Your task to perform on an android device: turn off improve location accuracy Image 0: 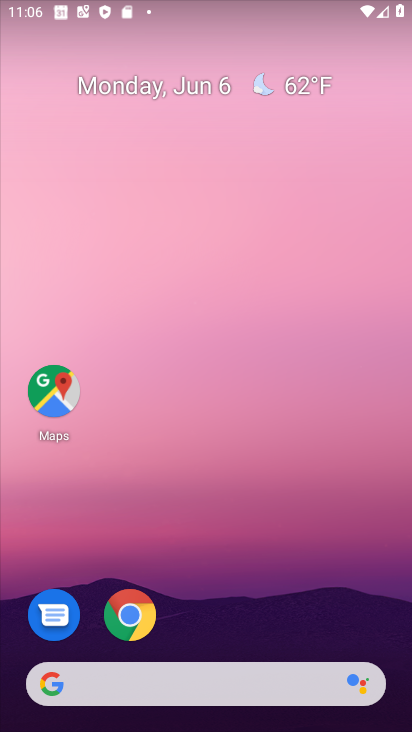
Step 0: drag from (181, 663) to (255, 141)
Your task to perform on an android device: turn off improve location accuracy Image 1: 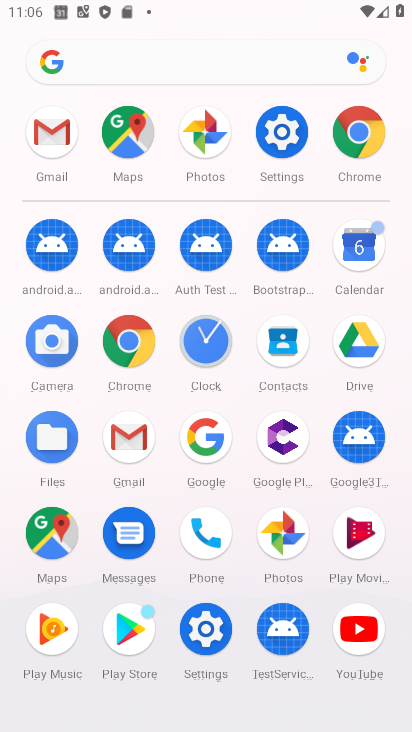
Step 1: click (276, 132)
Your task to perform on an android device: turn off improve location accuracy Image 2: 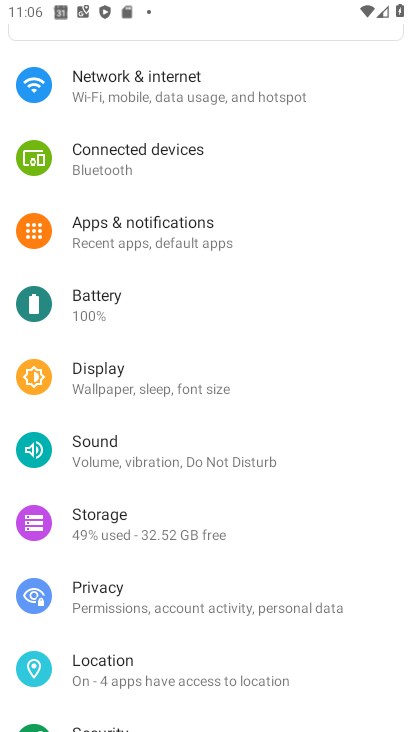
Step 2: click (156, 647)
Your task to perform on an android device: turn off improve location accuracy Image 3: 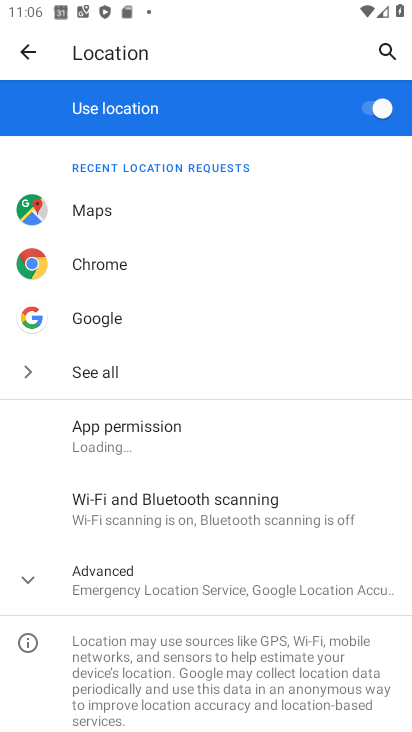
Step 3: click (117, 583)
Your task to perform on an android device: turn off improve location accuracy Image 4: 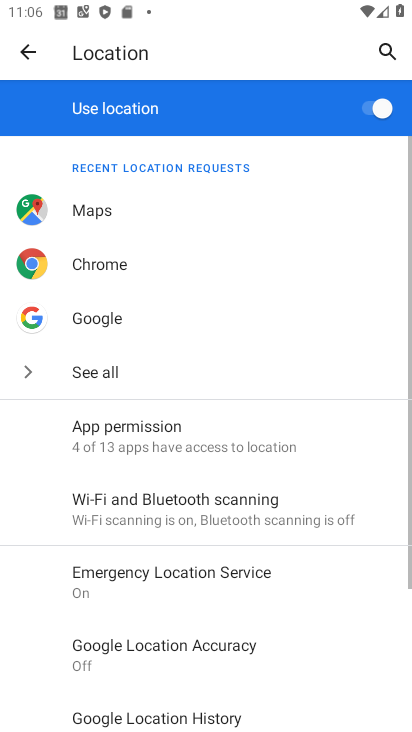
Step 4: click (203, 653)
Your task to perform on an android device: turn off improve location accuracy Image 5: 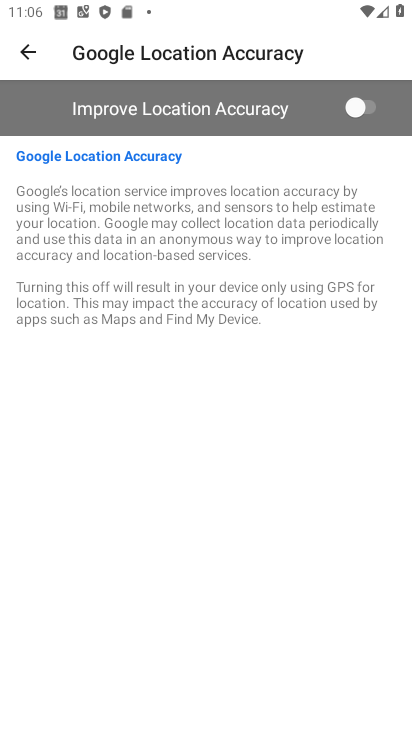
Step 5: task complete